Your task to perform on an android device: Open Google Chrome Image 0: 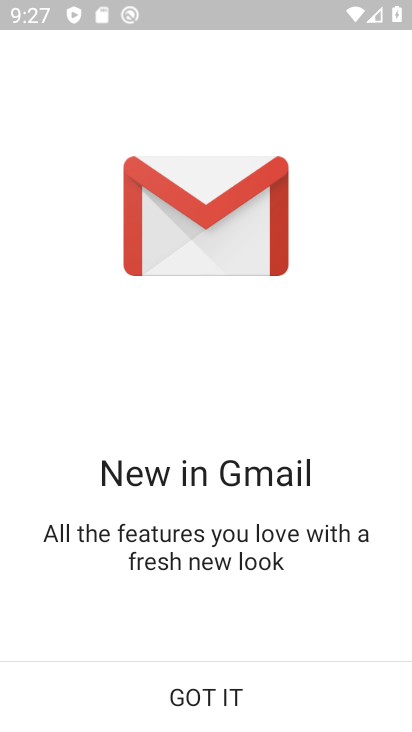
Step 0: press home button
Your task to perform on an android device: Open Google Chrome Image 1: 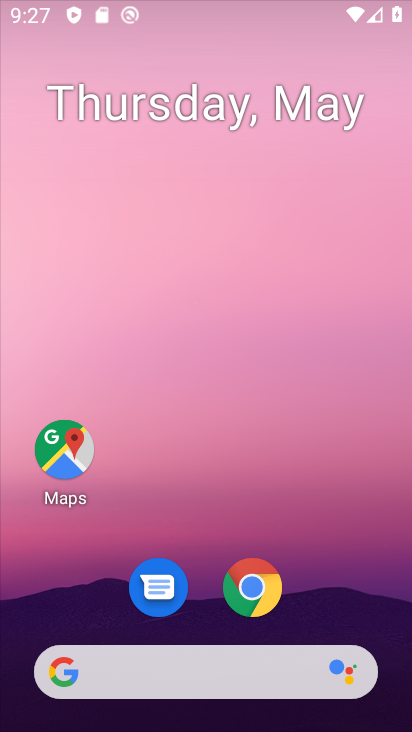
Step 1: click (267, 587)
Your task to perform on an android device: Open Google Chrome Image 2: 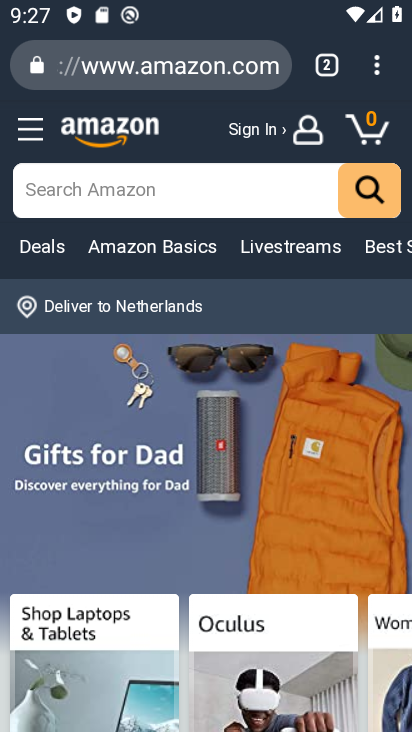
Step 2: task complete